Your task to perform on an android device: What's the weather today? Image 0: 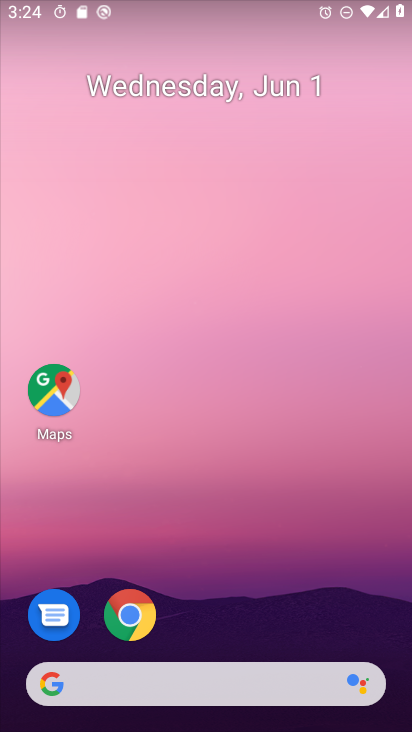
Step 0: drag from (223, 359) to (217, 220)
Your task to perform on an android device: What's the weather today? Image 1: 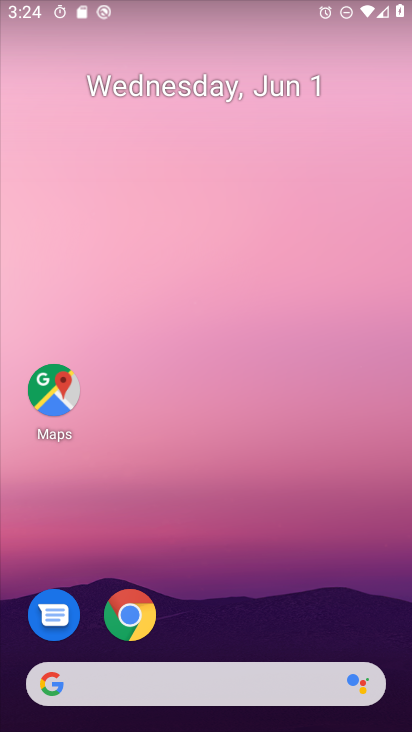
Step 1: drag from (261, 609) to (223, 43)
Your task to perform on an android device: What's the weather today? Image 2: 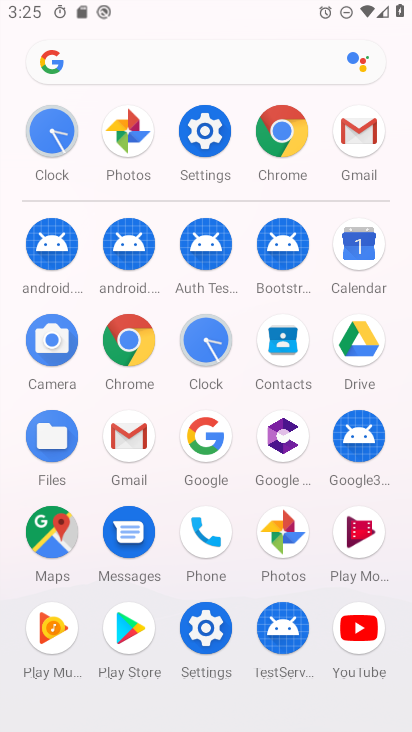
Step 2: click (287, 131)
Your task to perform on an android device: What's the weather today? Image 3: 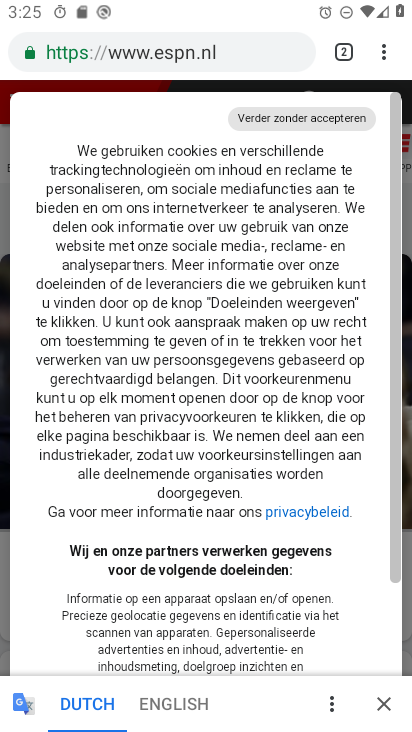
Step 3: click (174, 63)
Your task to perform on an android device: What's the weather today? Image 4: 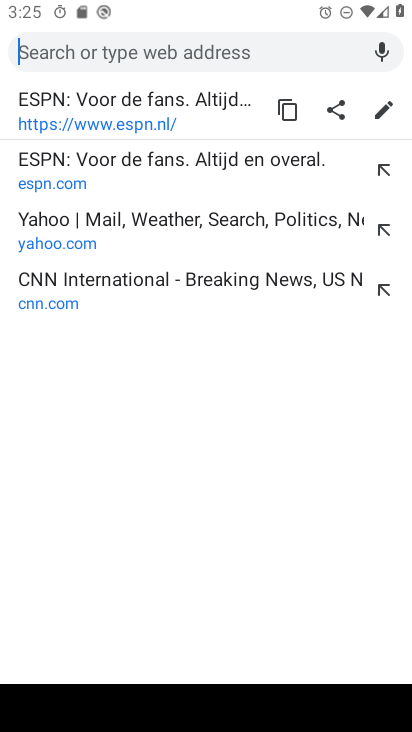
Step 4: type "whats the weather today"
Your task to perform on an android device: What's the weather today? Image 5: 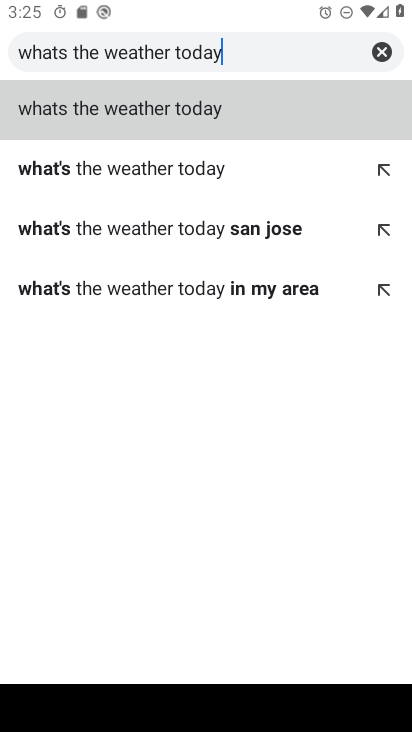
Step 5: click (242, 117)
Your task to perform on an android device: What's the weather today? Image 6: 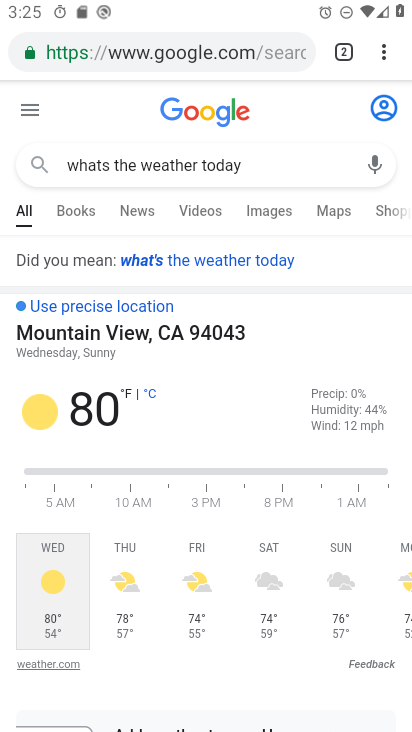
Step 6: click (243, 265)
Your task to perform on an android device: What's the weather today? Image 7: 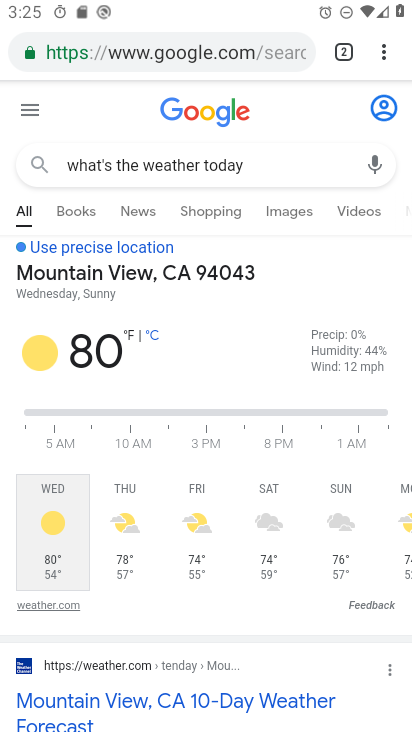
Step 7: task complete